Your task to perform on an android device: check data usage Image 0: 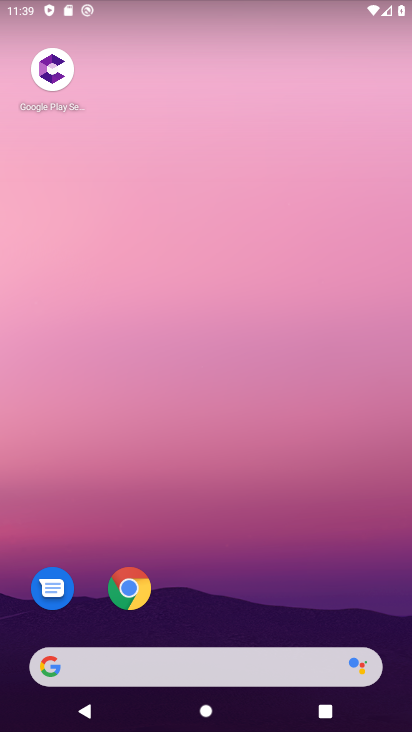
Step 0: click (248, 145)
Your task to perform on an android device: check data usage Image 1: 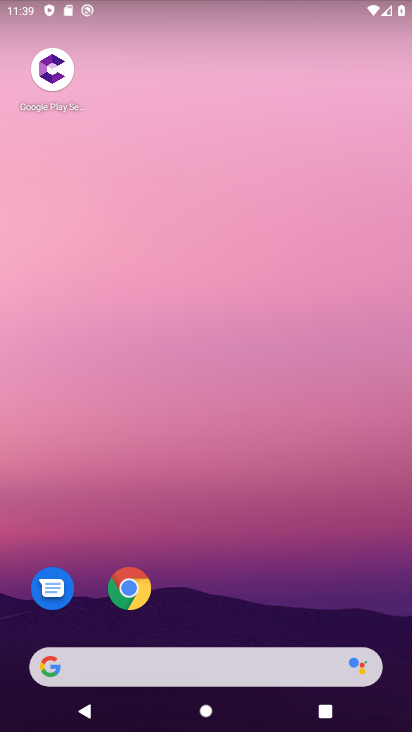
Step 1: drag from (248, 390) to (273, 71)
Your task to perform on an android device: check data usage Image 2: 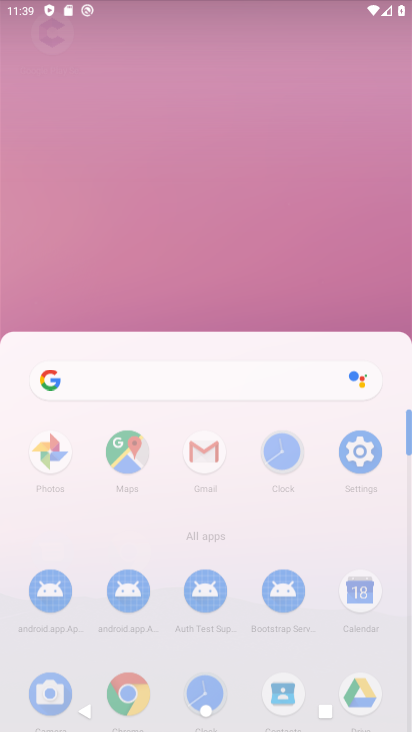
Step 2: drag from (283, 327) to (225, 61)
Your task to perform on an android device: check data usage Image 3: 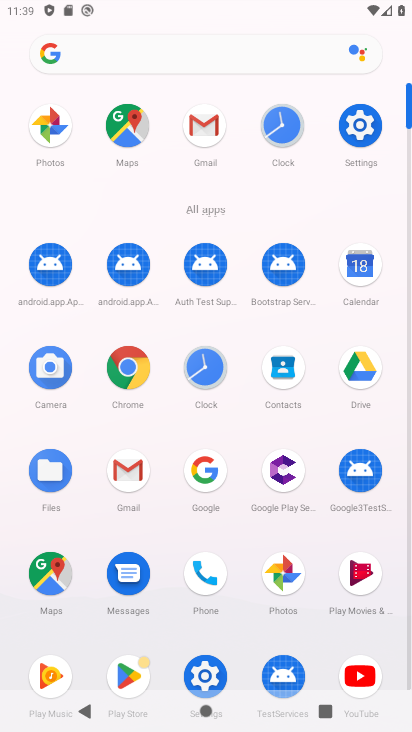
Step 3: click (345, 126)
Your task to perform on an android device: check data usage Image 4: 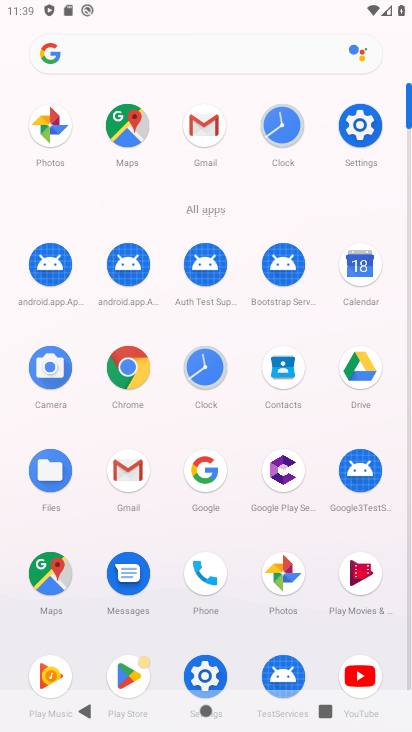
Step 4: click (349, 128)
Your task to perform on an android device: check data usage Image 5: 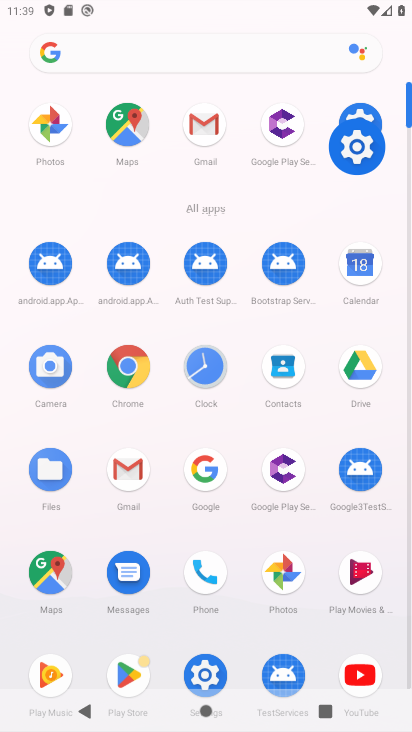
Step 5: click (358, 130)
Your task to perform on an android device: check data usage Image 6: 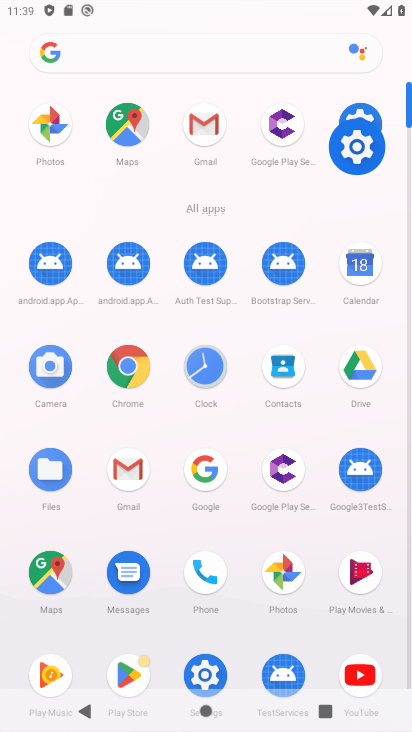
Step 6: click (356, 129)
Your task to perform on an android device: check data usage Image 7: 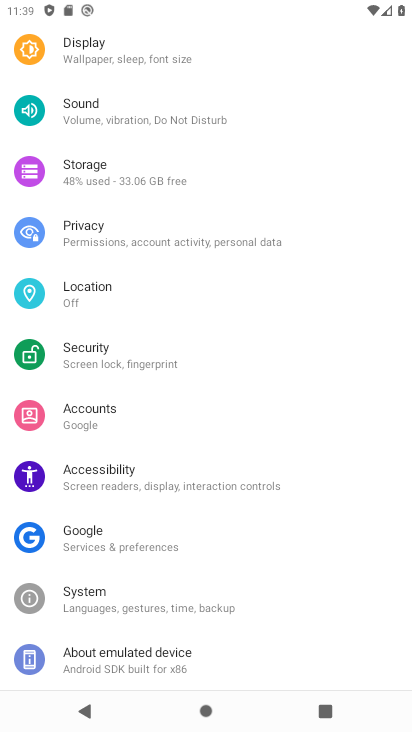
Step 7: click (353, 126)
Your task to perform on an android device: check data usage Image 8: 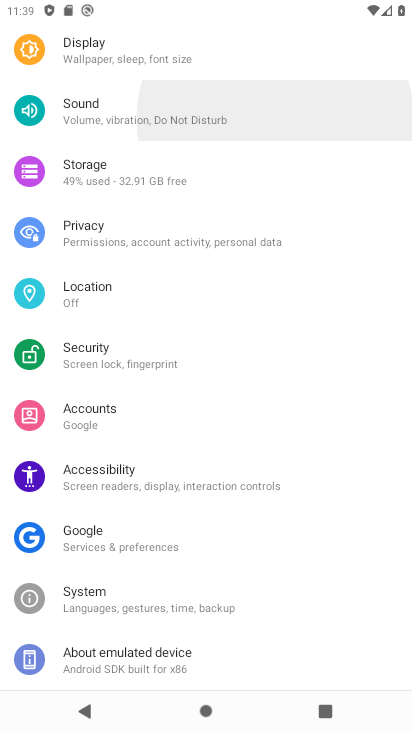
Step 8: click (353, 124)
Your task to perform on an android device: check data usage Image 9: 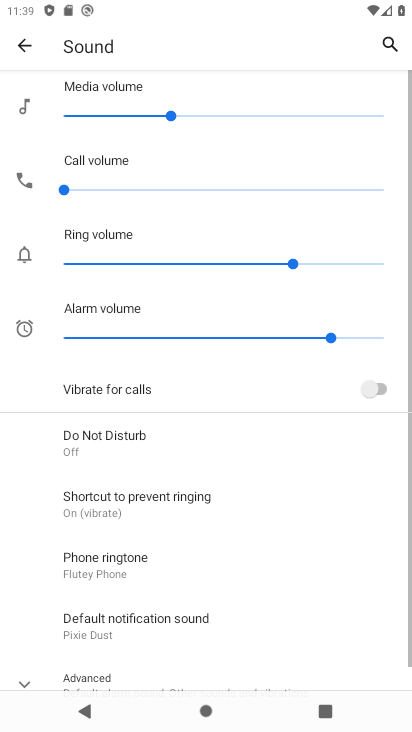
Step 9: drag from (187, 158) to (187, 385)
Your task to perform on an android device: check data usage Image 10: 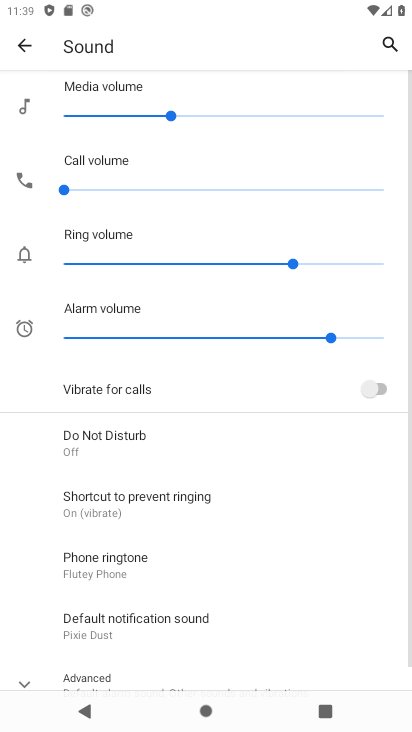
Step 10: click (19, 40)
Your task to perform on an android device: check data usage Image 11: 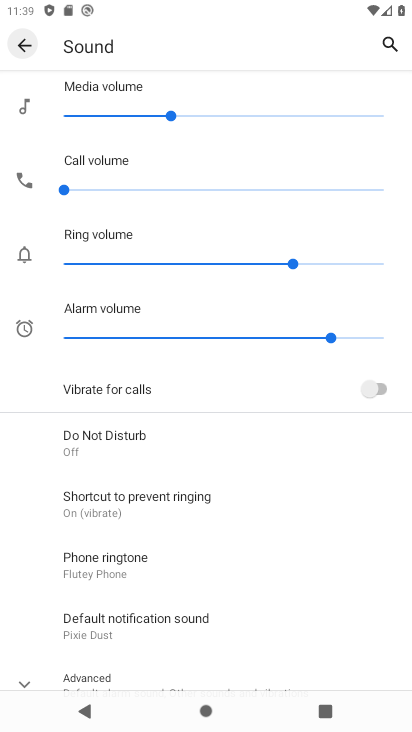
Step 11: click (20, 41)
Your task to perform on an android device: check data usage Image 12: 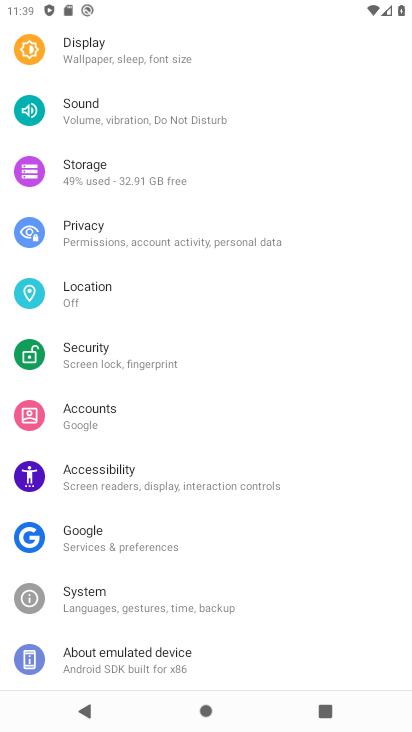
Step 12: drag from (147, 140) to (165, 353)
Your task to perform on an android device: check data usage Image 13: 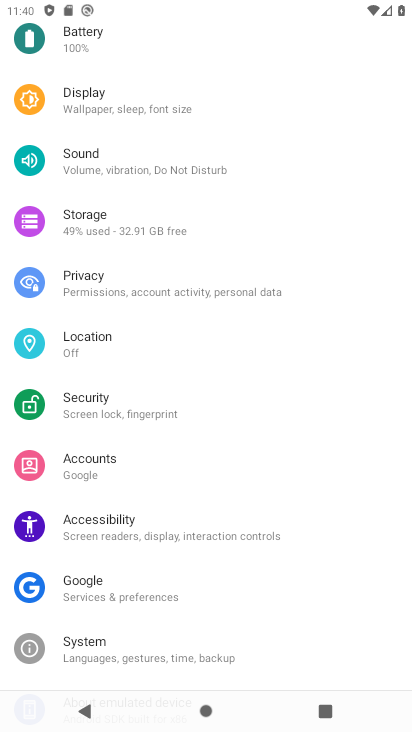
Step 13: drag from (138, 72) to (173, 332)
Your task to perform on an android device: check data usage Image 14: 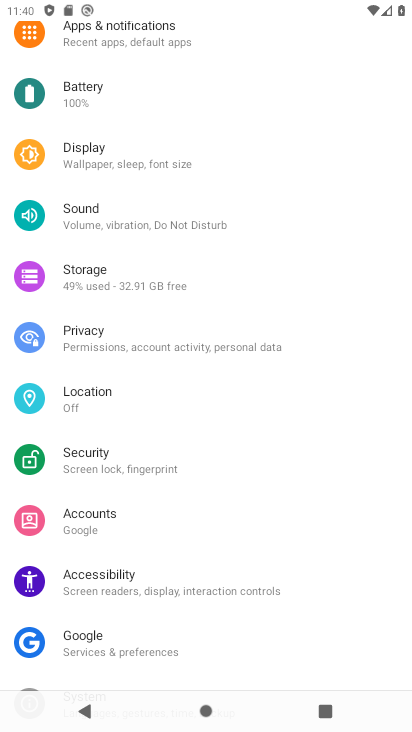
Step 14: drag from (120, 182) to (148, 467)
Your task to perform on an android device: check data usage Image 15: 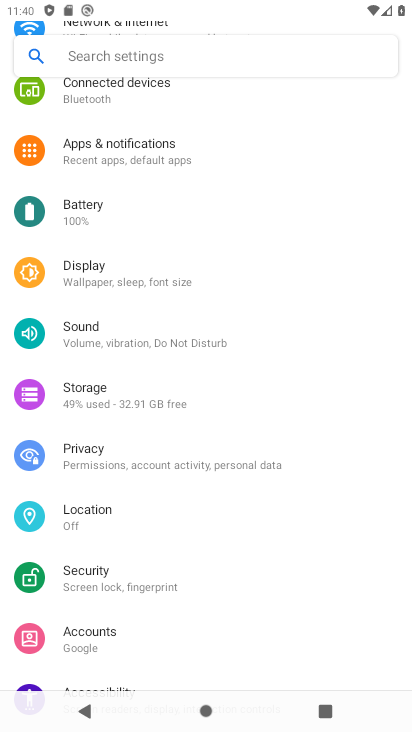
Step 15: drag from (118, 265) to (176, 434)
Your task to perform on an android device: check data usage Image 16: 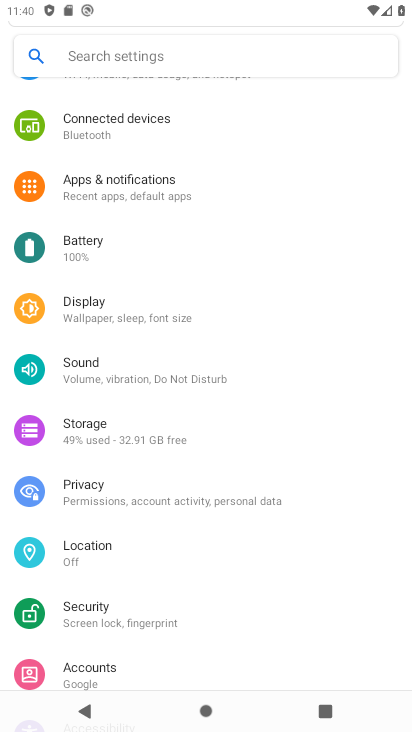
Step 16: click (99, 127)
Your task to perform on an android device: check data usage Image 17: 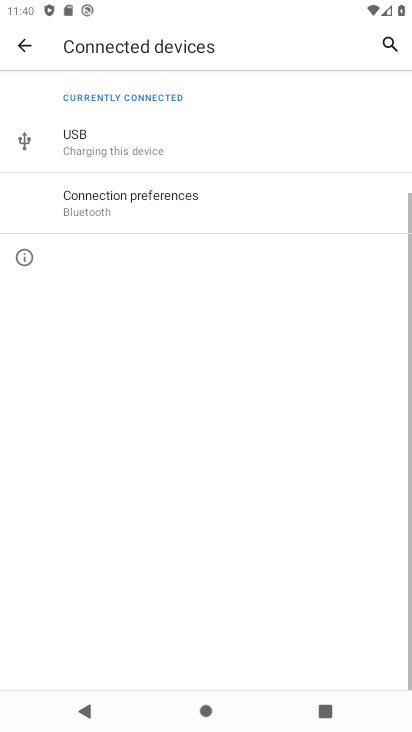
Step 17: click (132, 139)
Your task to perform on an android device: check data usage Image 18: 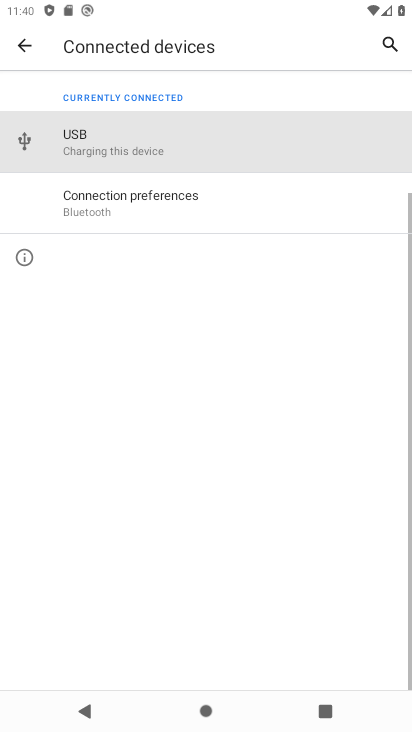
Step 18: click (23, 42)
Your task to perform on an android device: check data usage Image 19: 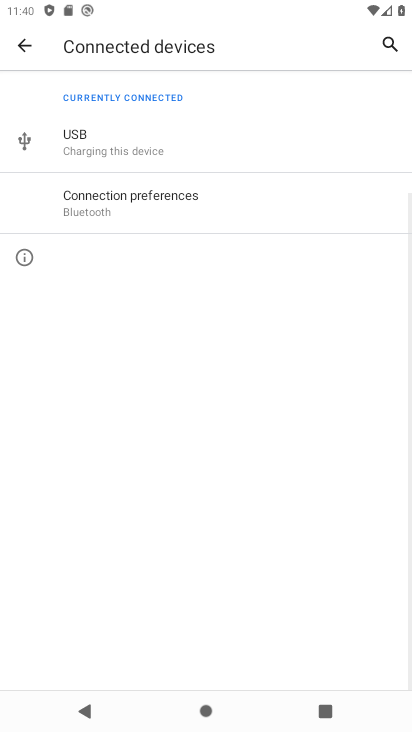
Step 19: click (34, 37)
Your task to perform on an android device: check data usage Image 20: 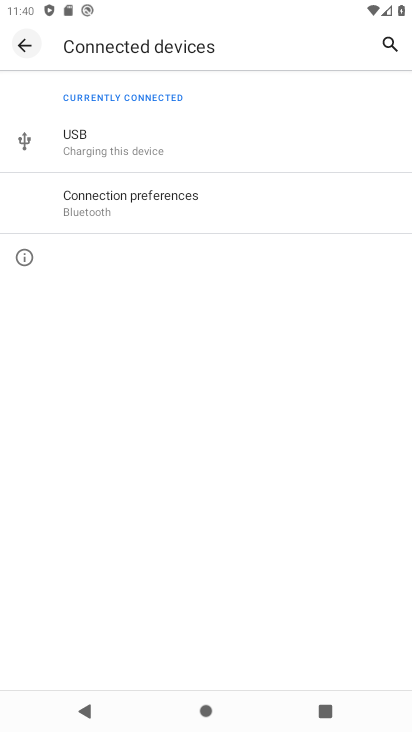
Step 20: click (30, 43)
Your task to perform on an android device: check data usage Image 21: 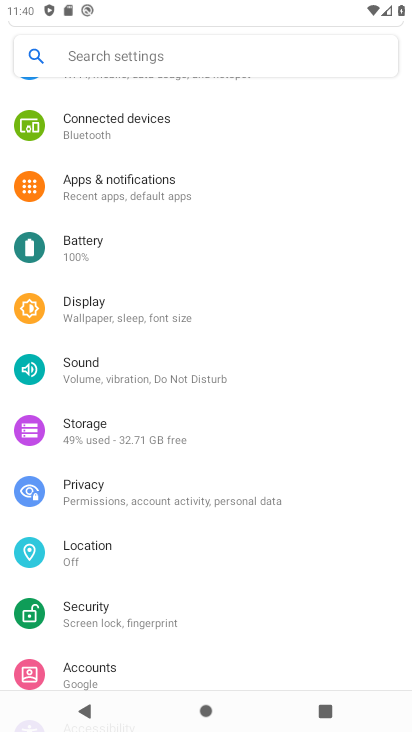
Step 21: drag from (109, 143) to (113, 480)
Your task to perform on an android device: check data usage Image 22: 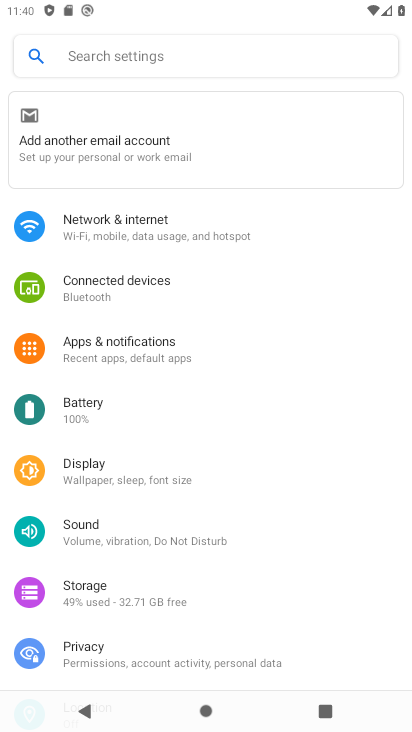
Step 22: click (113, 216)
Your task to perform on an android device: check data usage Image 23: 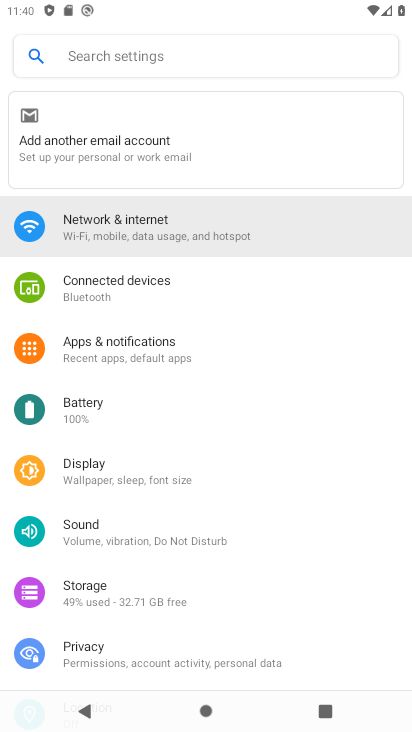
Step 23: click (114, 223)
Your task to perform on an android device: check data usage Image 24: 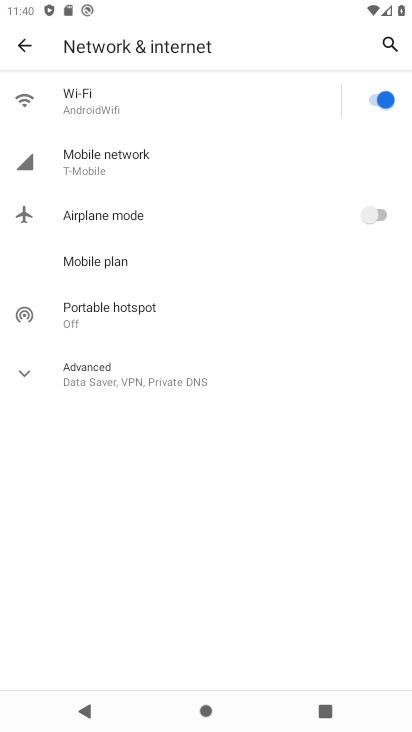
Step 24: task complete